Your task to perform on an android device: Open the Play Movies app and select the watchlist tab. Image 0: 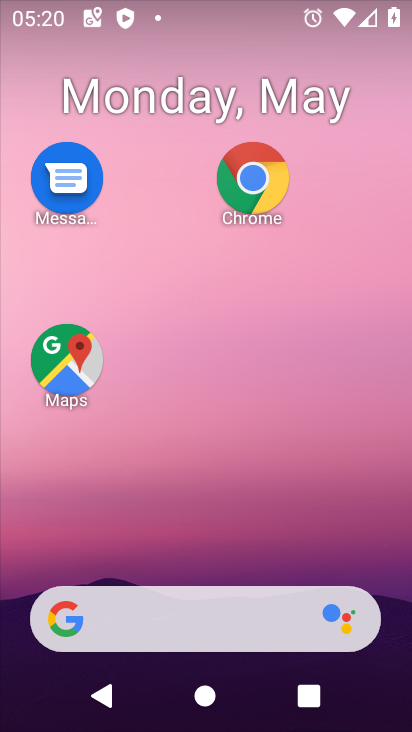
Step 0: drag from (252, 544) to (251, 184)
Your task to perform on an android device: Open the Play Movies app and select the watchlist tab. Image 1: 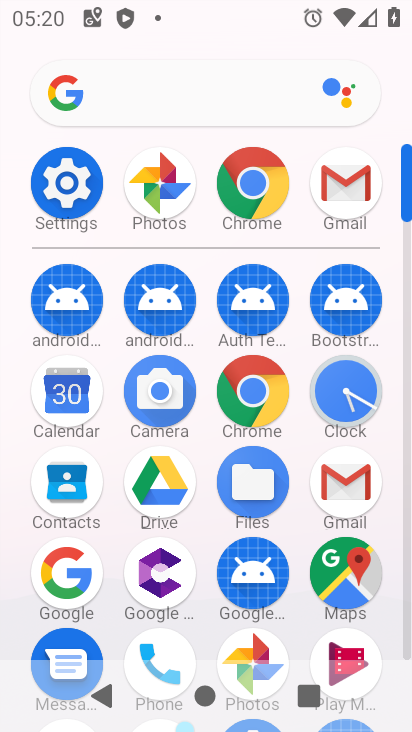
Step 1: click (339, 653)
Your task to perform on an android device: Open the Play Movies app and select the watchlist tab. Image 2: 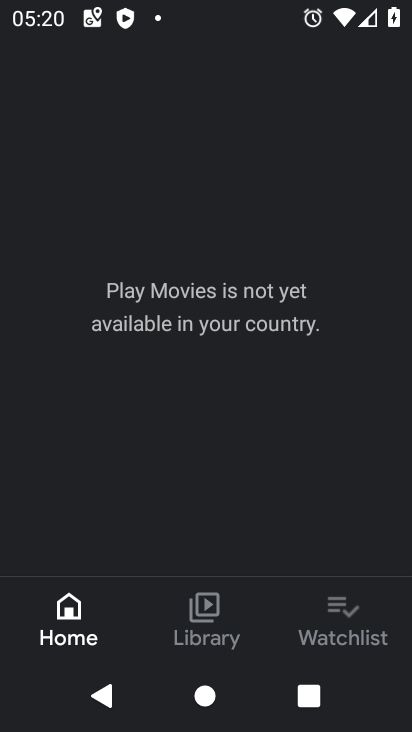
Step 2: click (327, 630)
Your task to perform on an android device: Open the Play Movies app and select the watchlist tab. Image 3: 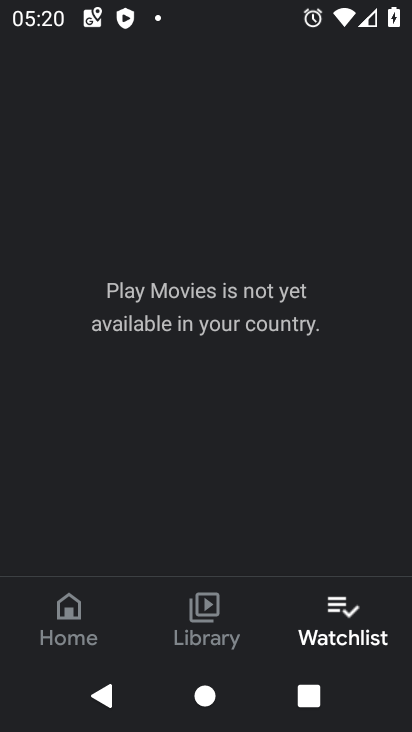
Step 3: task complete